Your task to perform on an android device: toggle notification dots Image 0: 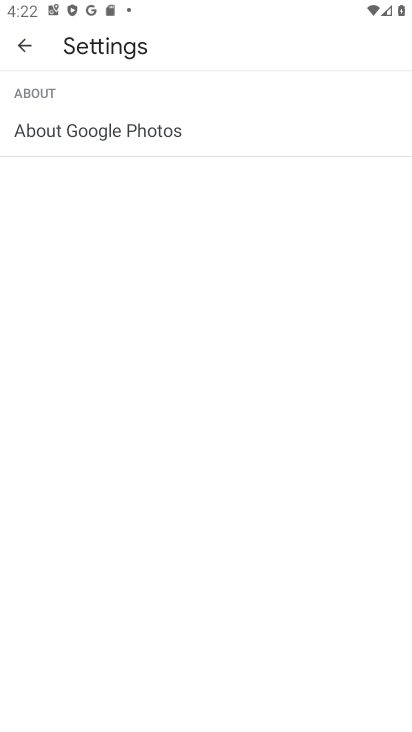
Step 0: press home button
Your task to perform on an android device: toggle notification dots Image 1: 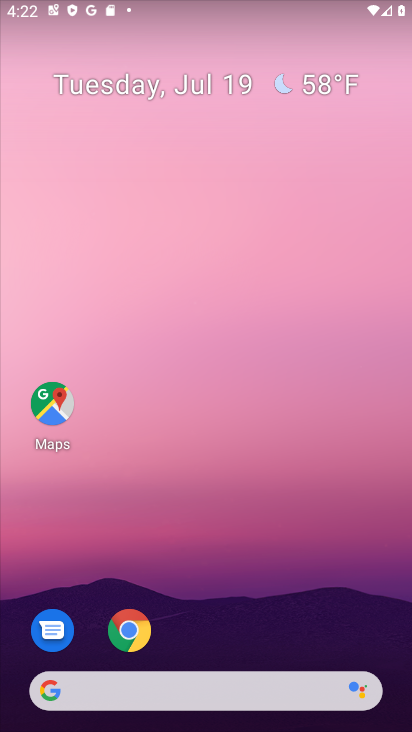
Step 1: drag from (254, 620) to (239, 86)
Your task to perform on an android device: toggle notification dots Image 2: 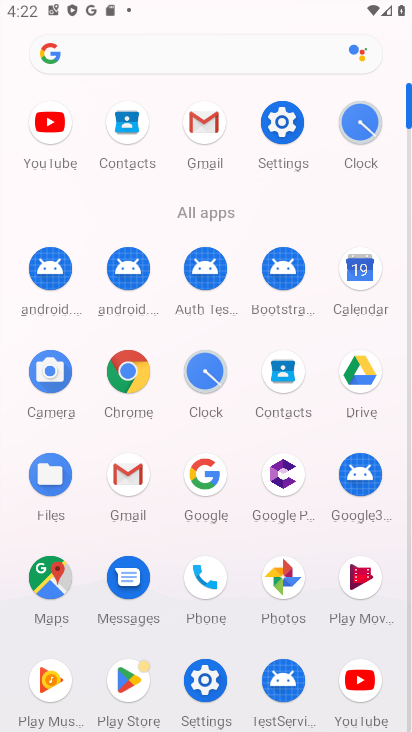
Step 2: click (284, 119)
Your task to perform on an android device: toggle notification dots Image 3: 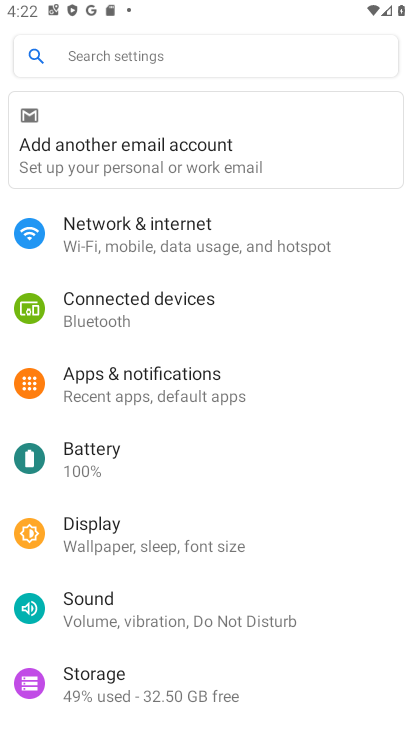
Step 3: click (119, 367)
Your task to perform on an android device: toggle notification dots Image 4: 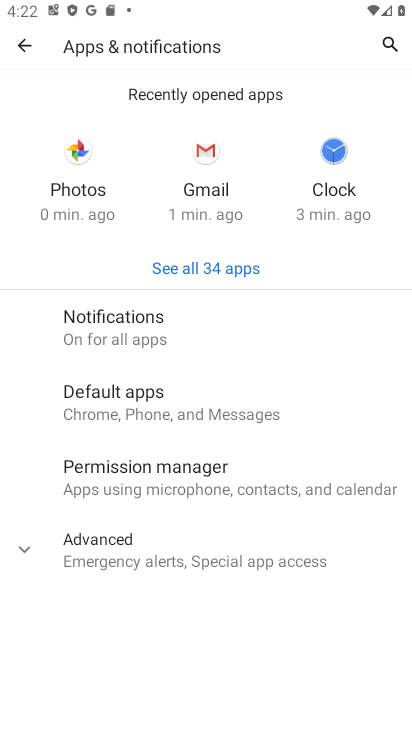
Step 4: click (115, 323)
Your task to perform on an android device: toggle notification dots Image 5: 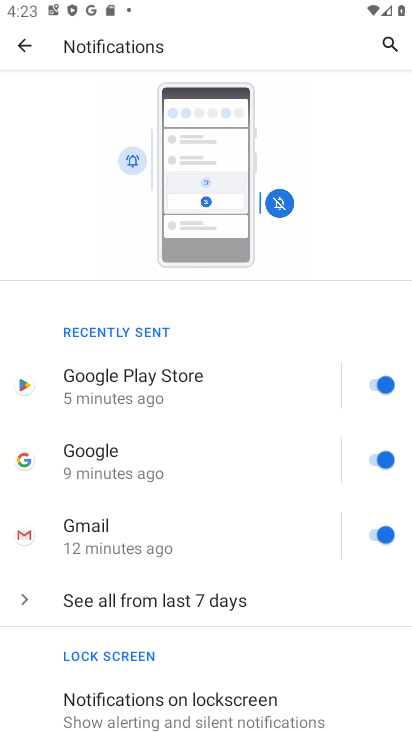
Step 5: drag from (95, 632) to (149, 269)
Your task to perform on an android device: toggle notification dots Image 6: 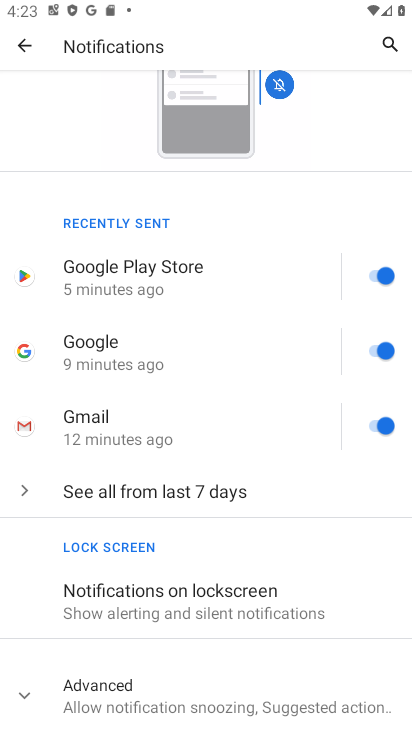
Step 6: click (28, 697)
Your task to perform on an android device: toggle notification dots Image 7: 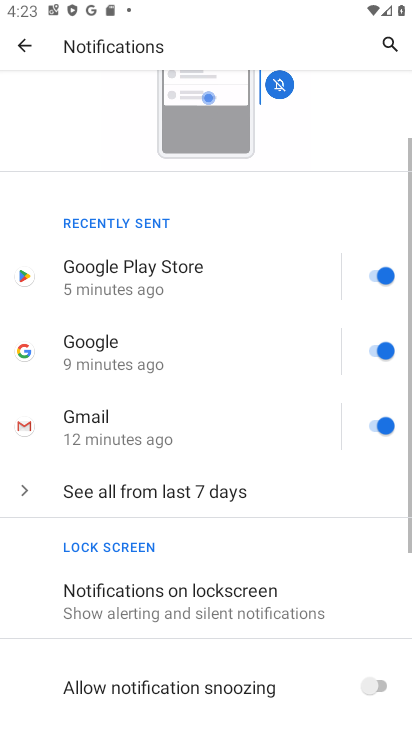
Step 7: drag from (224, 649) to (236, 289)
Your task to perform on an android device: toggle notification dots Image 8: 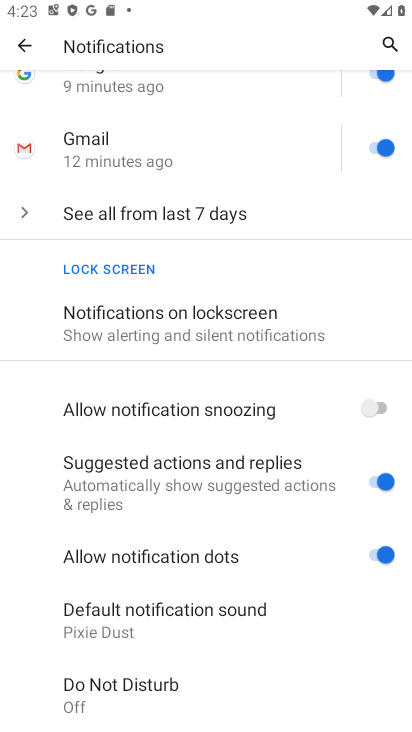
Step 8: click (377, 549)
Your task to perform on an android device: toggle notification dots Image 9: 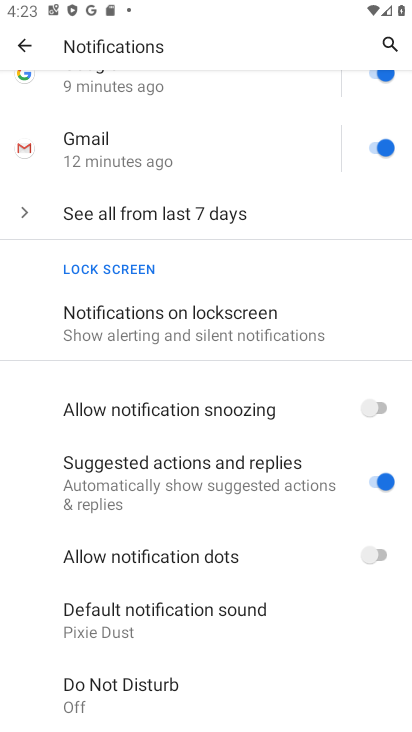
Step 9: task complete